Your task to perform on an android device: Search for logitech g pro on target.com, select the first entry, and add it to the cart. Image 0: 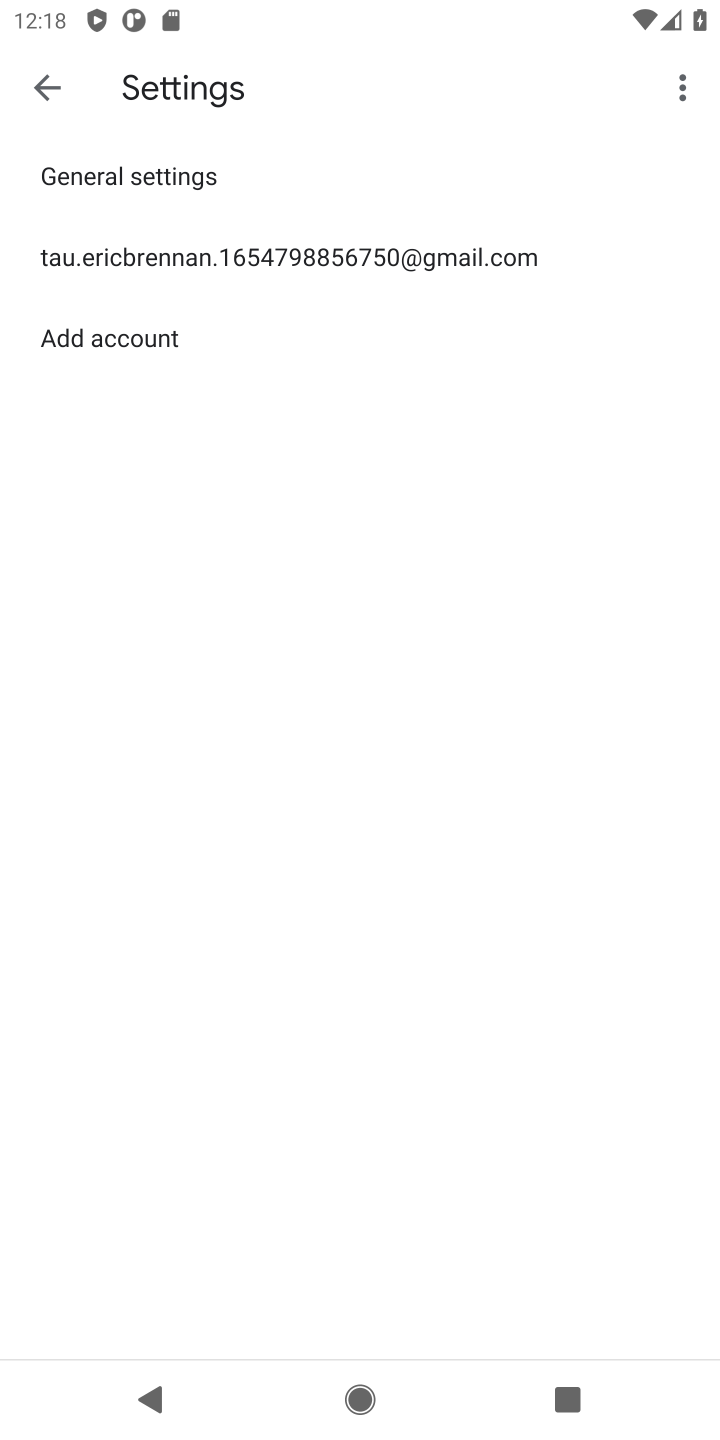
Step 0: press home button
Your task to perform on an android device: Search for logitech g pro on target.com, select the first entry, and add it to the cart. Image 1: 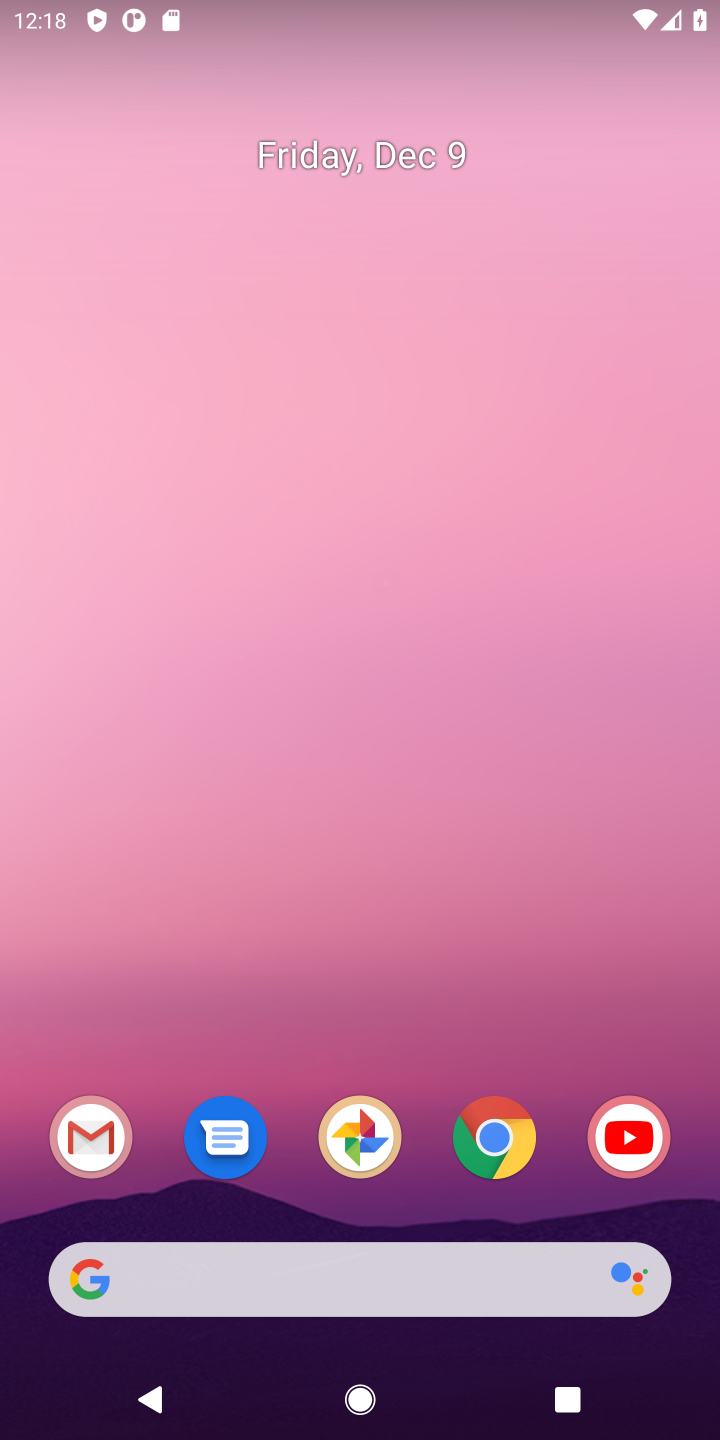
Step 1: click (495, 1123)
Your task to perform on an android device: Search for logitech g pro on target.com, select the first entry, and add it to the cart. Image 2: 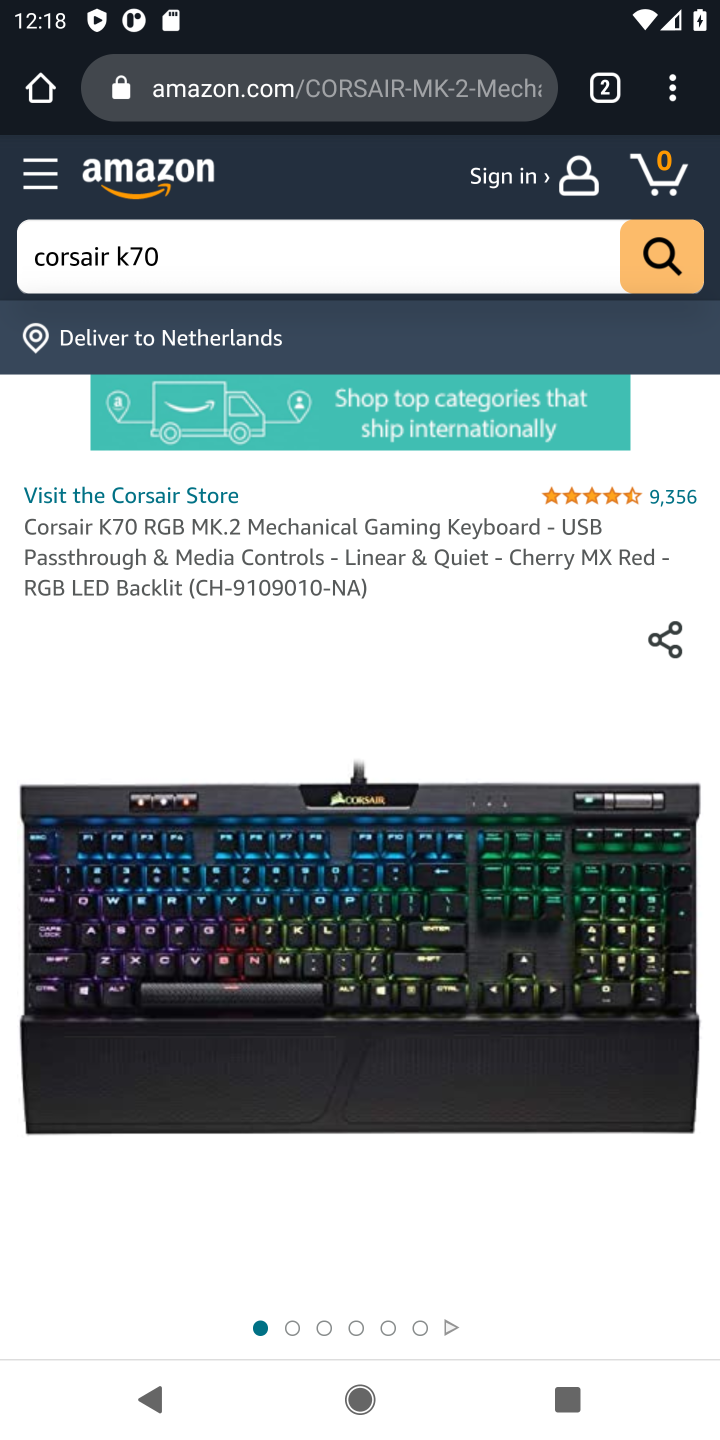
Step 2: click (340, 83)
Your task to perform on an android device: Search for logitech g pro on target.com, select the first entry, and add it to the cart. Image 3: 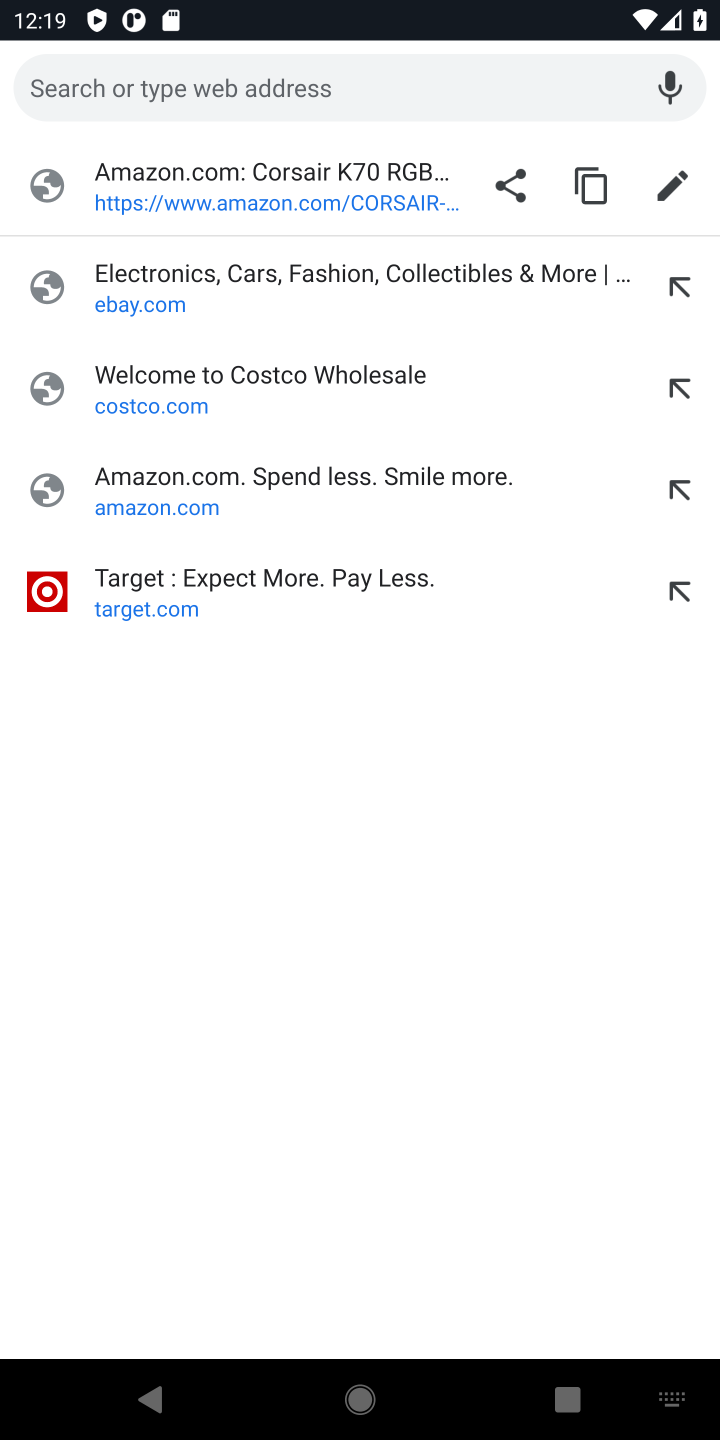
Step 3: type "TARGET"
Your task to perform on an android device: Search for logitech g pro on target.com, select the first entry, and add it to the cart. Image 4: 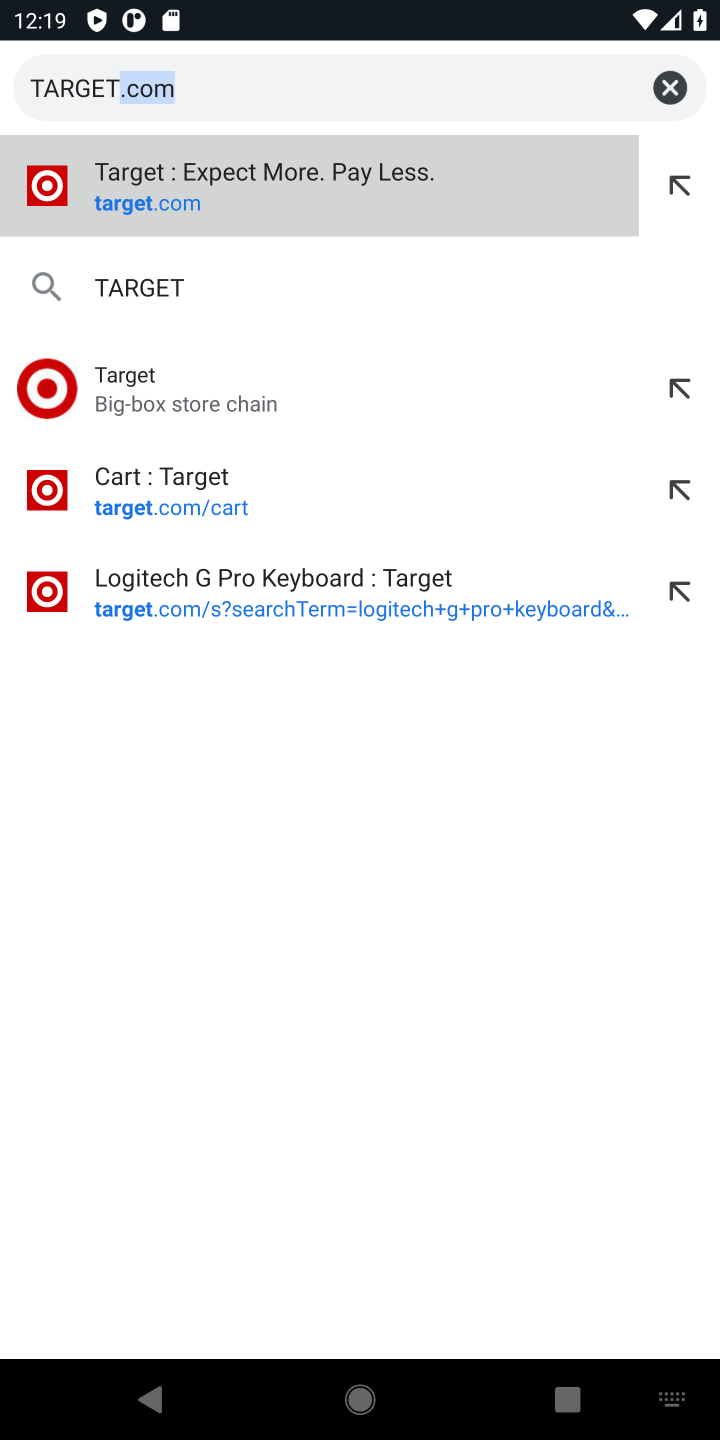
Step 4: click (229, 179)
Your task to perform on an android device: Search for logitech g pro on target.com, select the first entry, and add it to the cart. Image 5: 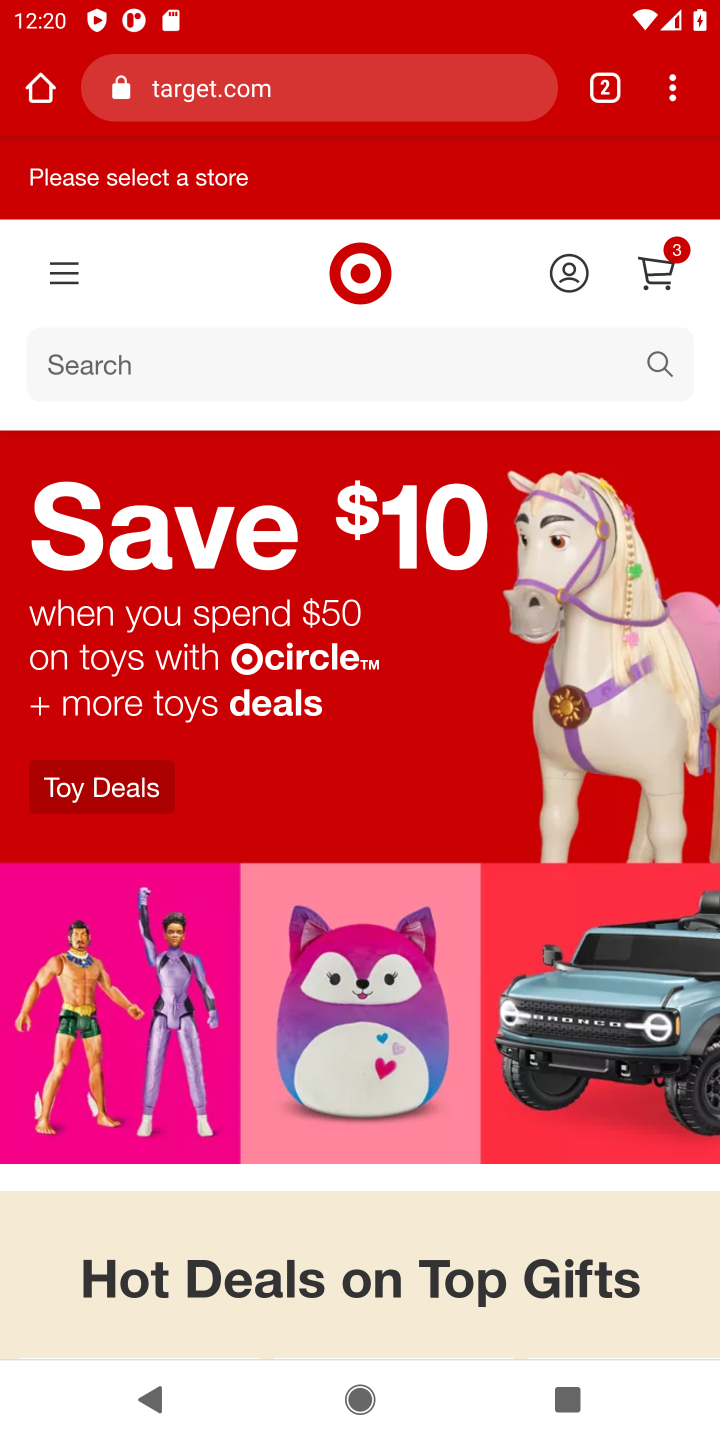
Step 5: click (496, 367)
Your task to perform on an android device: Search for logitech g pro on target.com, select the first entry, and add it to the cart. Image 6: 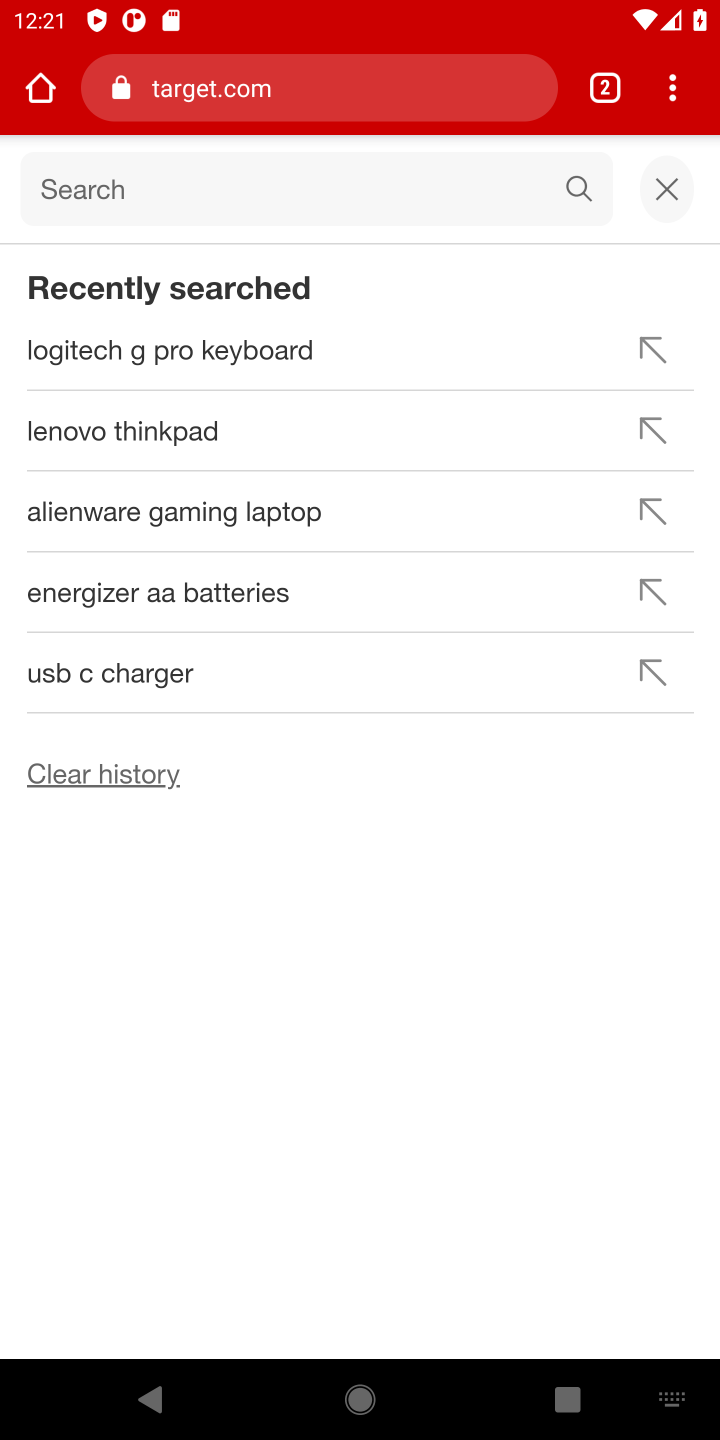
Step 6: type "logitech g pro"
Your task to perform on an android device: Search for logitech g pro on target.com, select the first entry, and add it to the cart. Image 7: 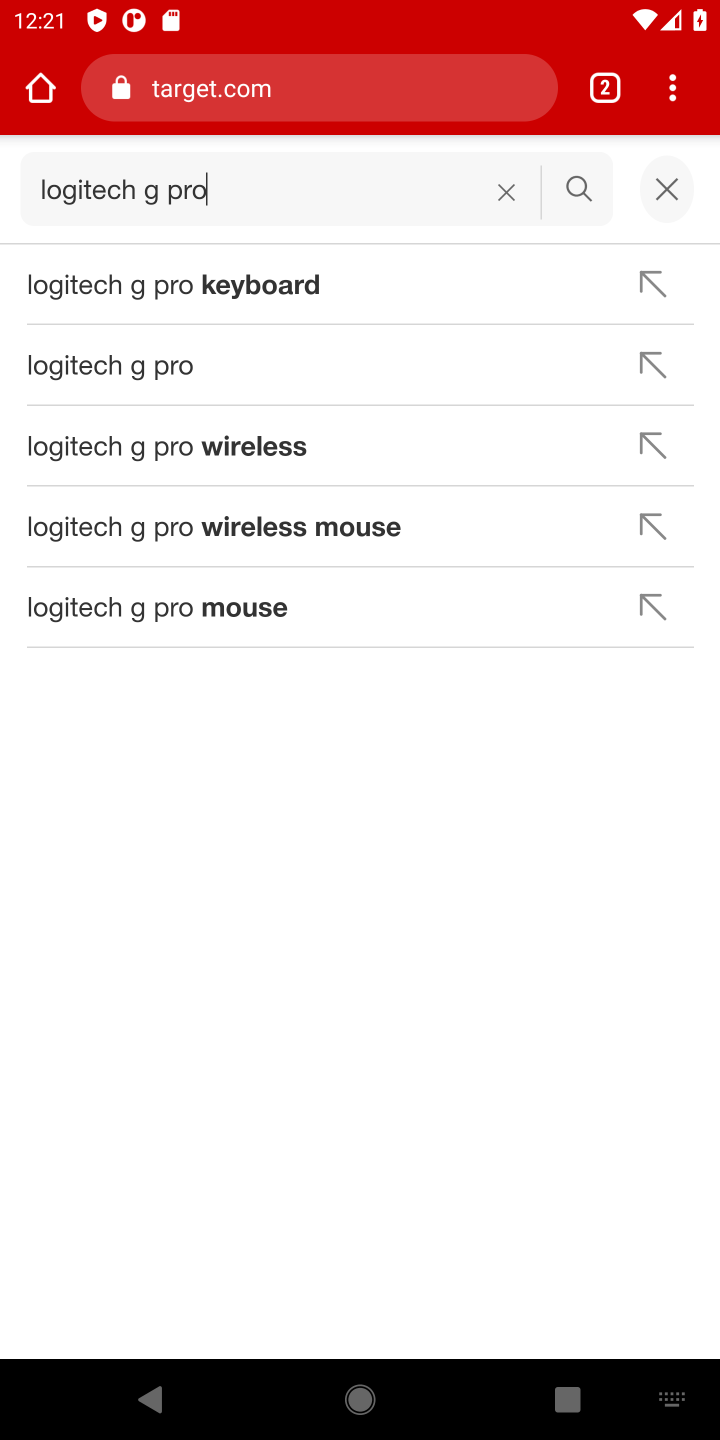
Step 7: click (234, 278)
Your task to perform on an android device: Search for logitech g pro on target.com, select the first entry, and add it to the cart. Image 8: 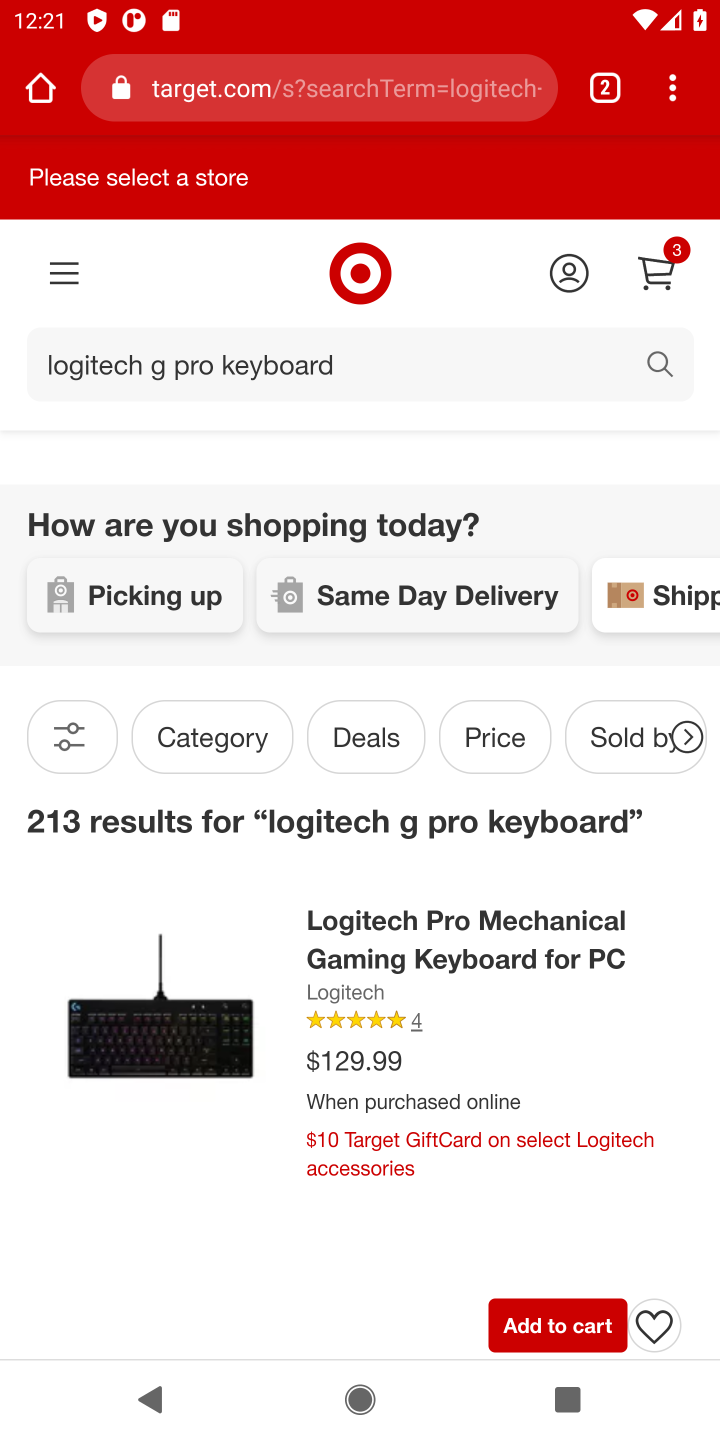
Step 8: click (554, 1328)
Your task to perform on an android device: Search for logitech g pro on target.com, select the first entry, and add it to the cart. Image 9: 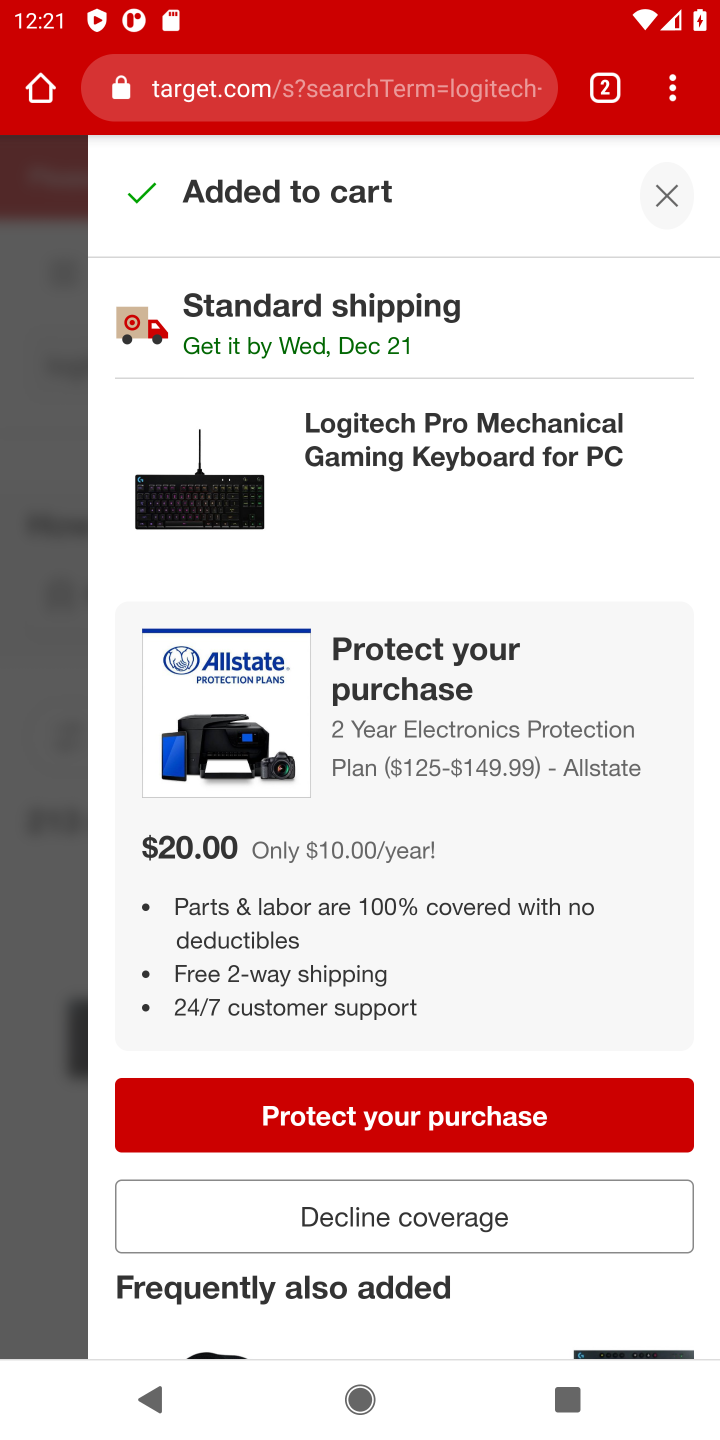
Step 9: click (669, 193)
Your task to perform on an android device: Search for logitech g pro on target.com, select the first entry, and add it to the cart. Image 10: 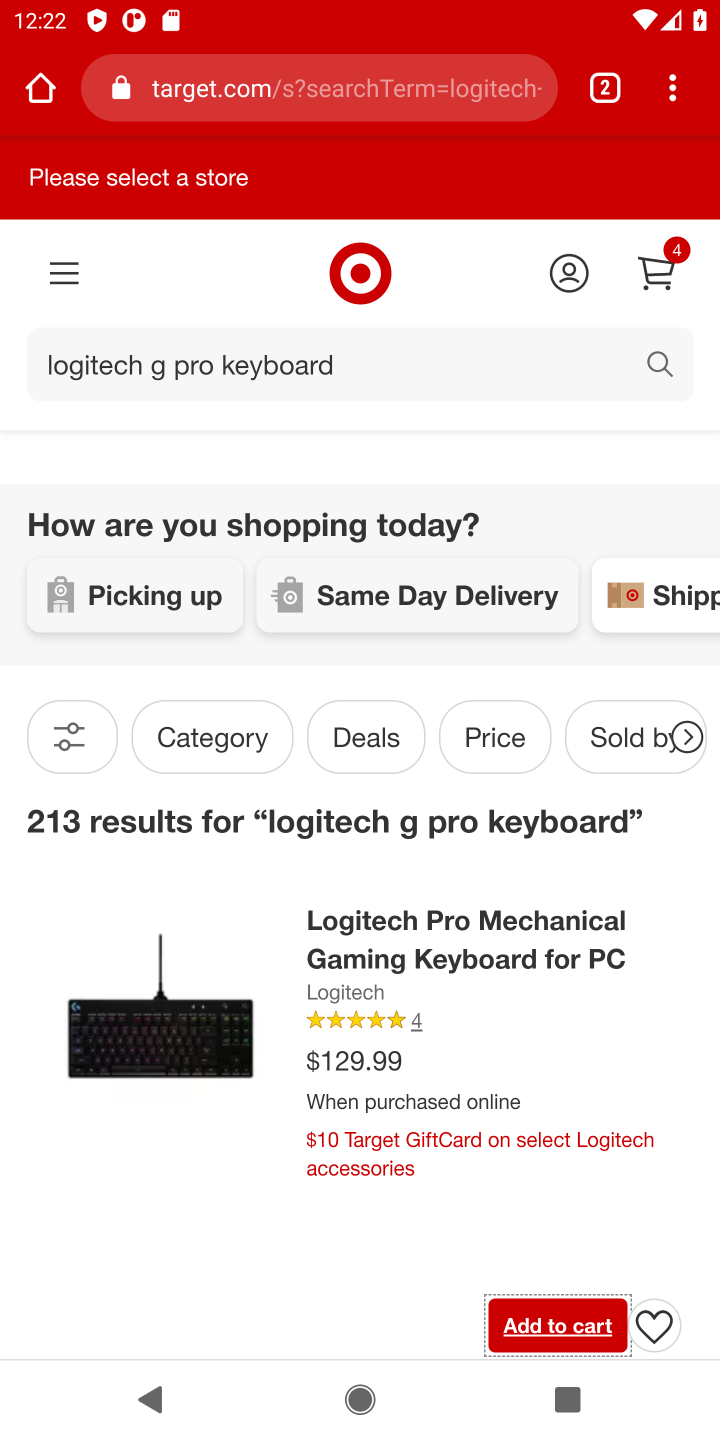
Step 10: task complete